Your task to perform on an android device: Go to eBay Image 0: 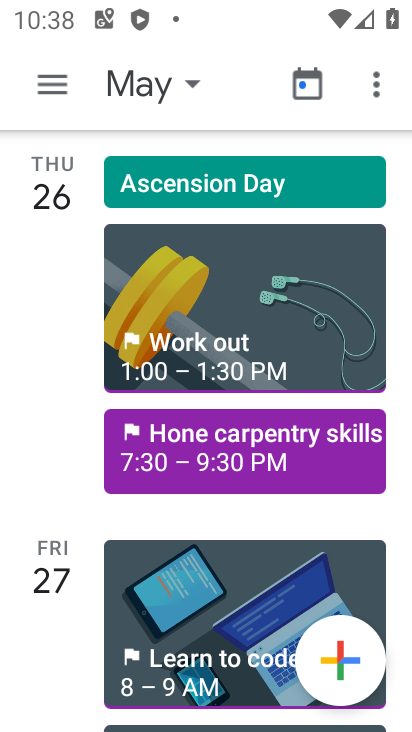
Step 0: press home button
Your task to perform on an android device: Go to eBay Image 1: 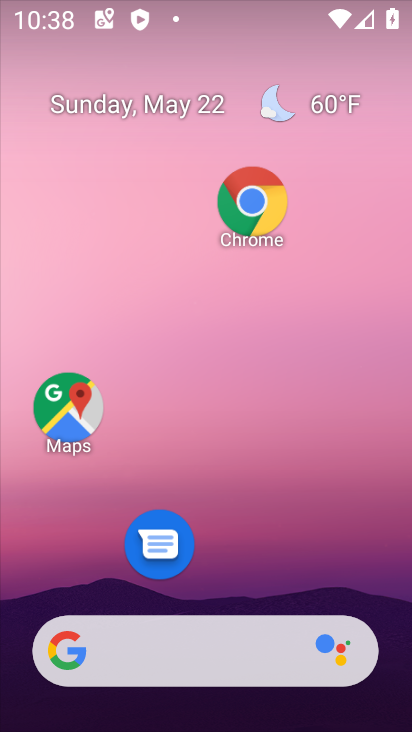
Step 1: drag from (310, 490) to (285, 56)
Your task to perform on an android device: Go to eBay Image 2: 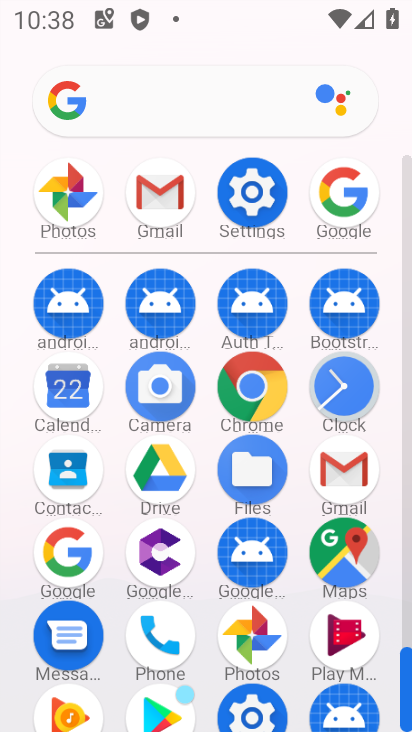
Step 2: click (347, 198)
Your task to perform on an android device: Go to eBay Image 3: 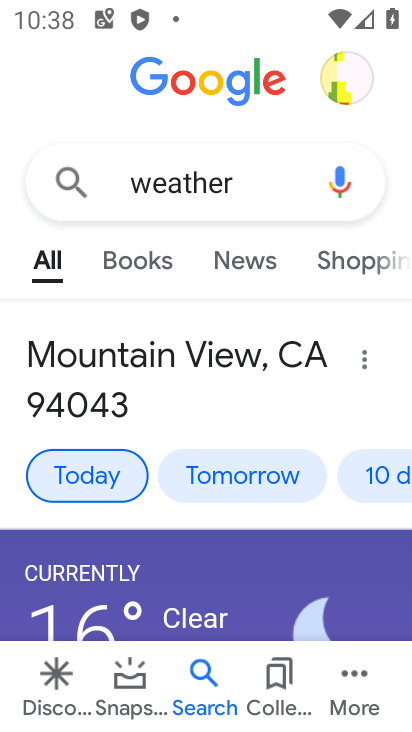
Step 3: click (259, 191)
Your task to perform on an android device: Go to eBay Image 4: 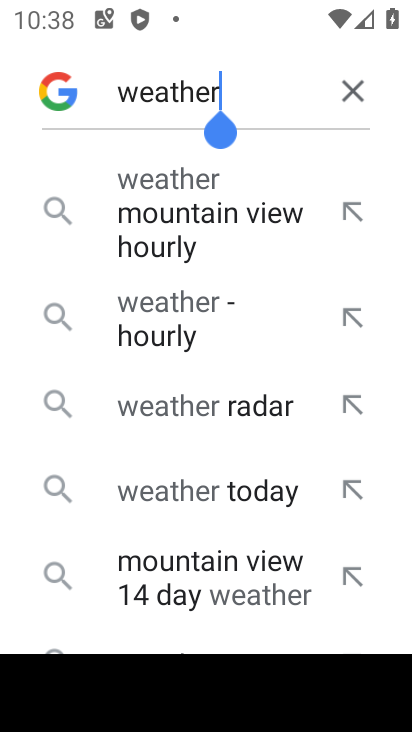
Step 4: click (349, 100)
Your task to perform on an android device: Go to eBay Image 5: 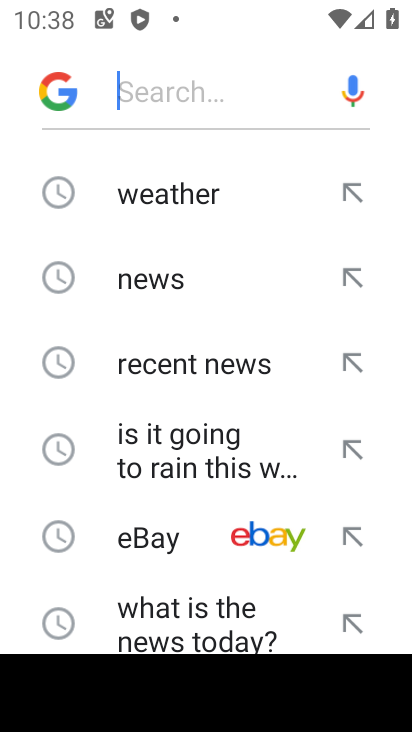
Step 5: click (134, 535)
Your task to perform on an android device: Go to eBay Image 6: 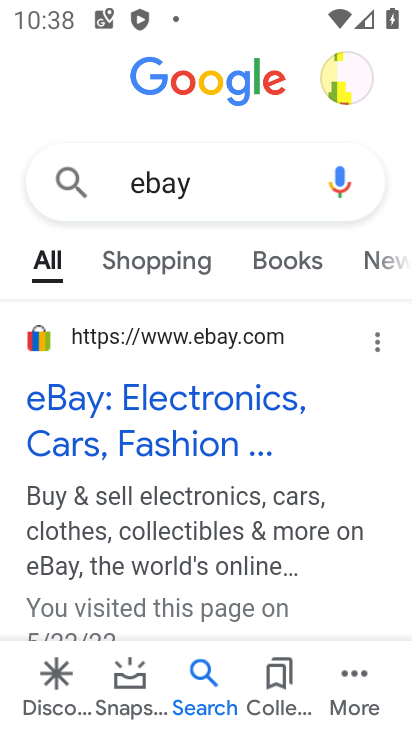
Step 6: task complete